Your task to perform on an android device: turn notification dots off Image 0: 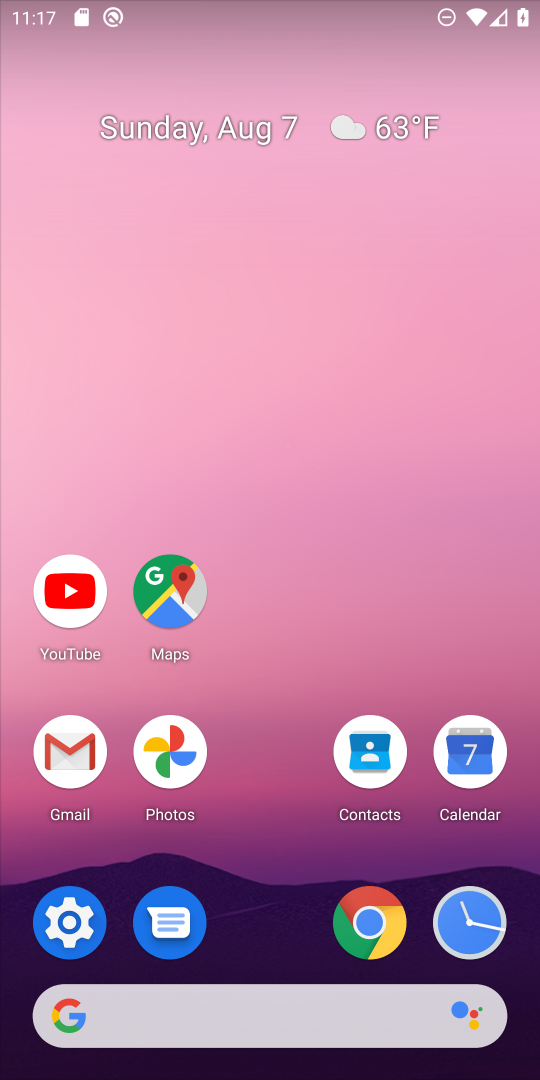
Step 0: press home button
Your task to perform on an android device: turn notification dots off Image 1: 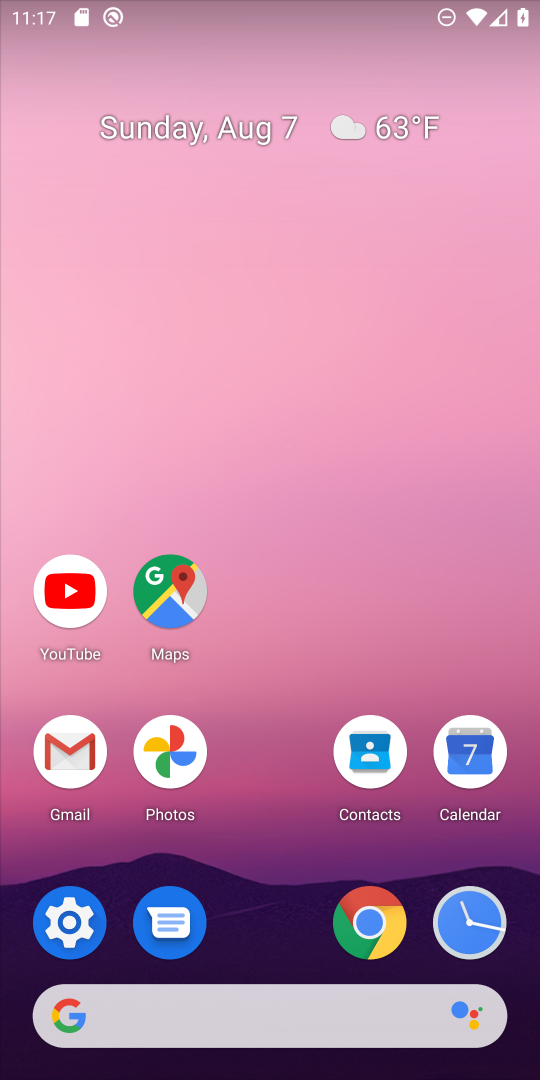
Step 1: click (69, 926)
Your task to perform on an android device: turn notification dots off Image 2: 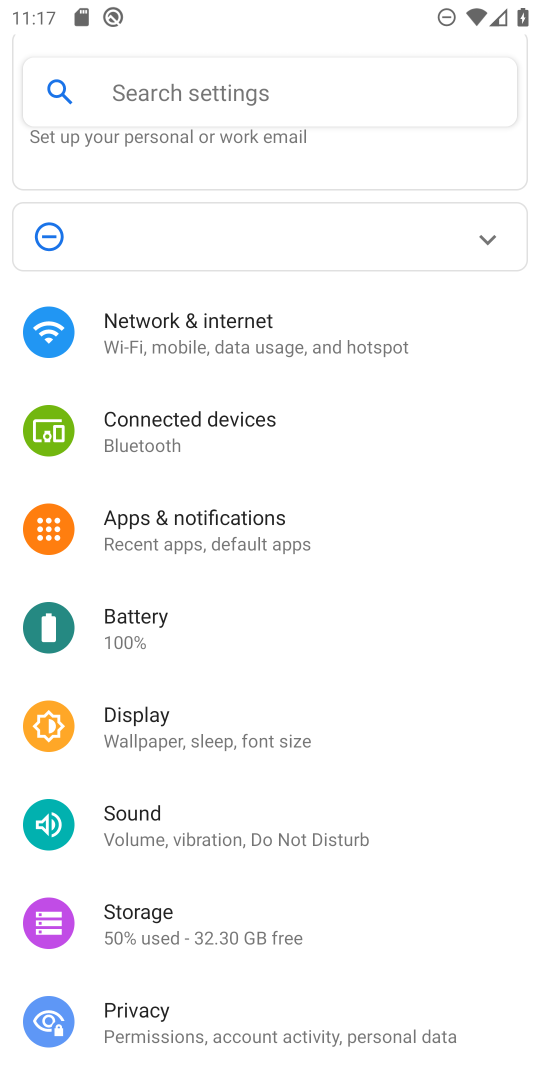
Step 2: click (205, 522)
Your task to perform on an android device: turn notification dots off Image 3: 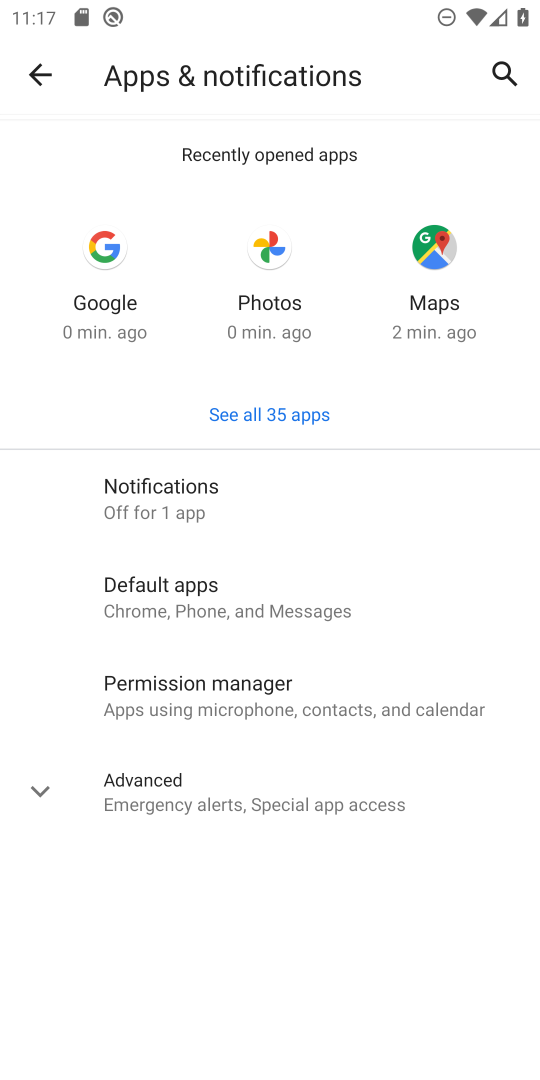
Step 3: click (179, 484)
Your task to perform on an android device: turn notification dots off Image 4: 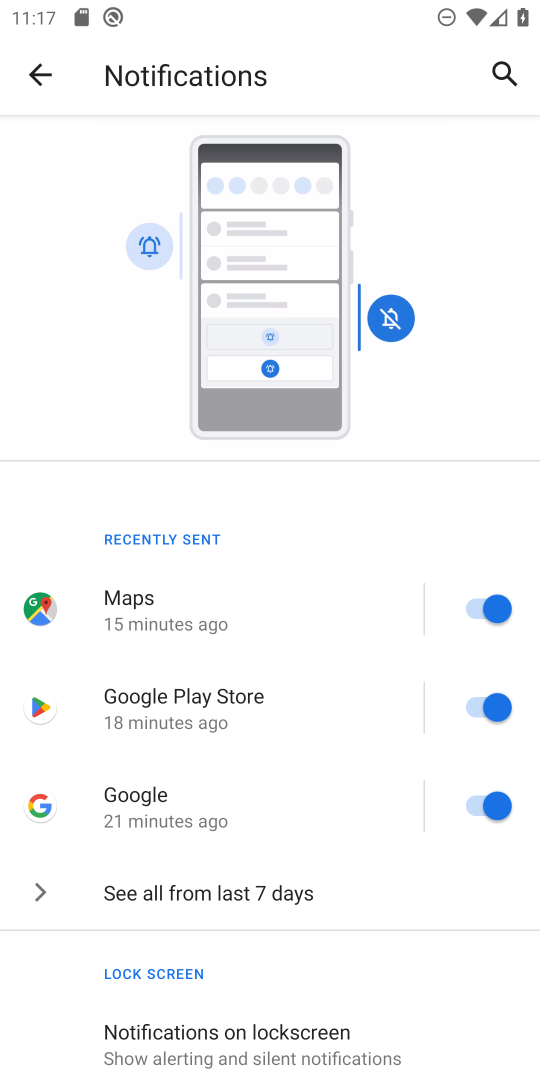
Step 4: drag from (265, 949) to (239, 168)
Your task to perform on an android device: turn notification dots off Image 5: 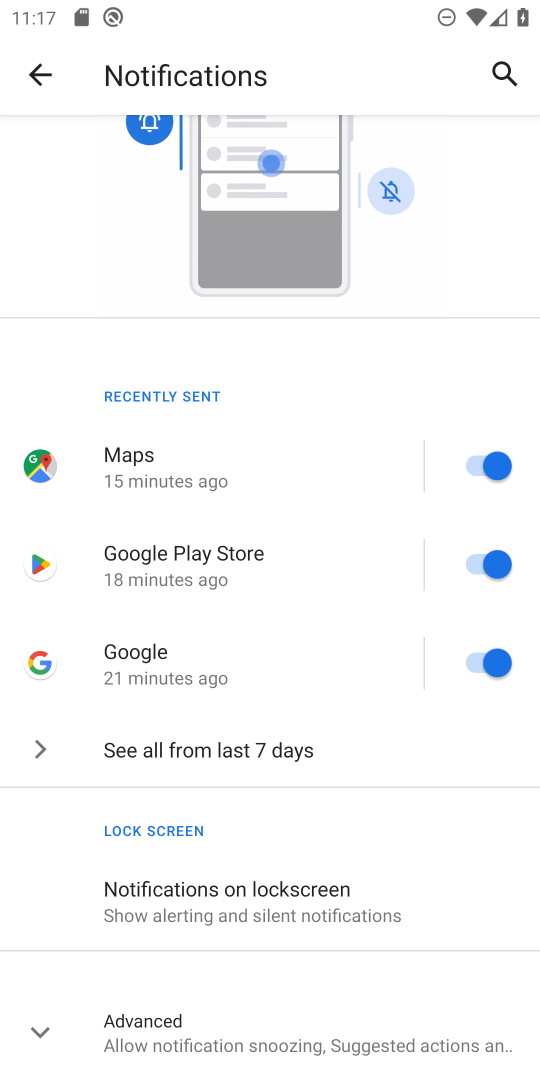
Step 5: click (30, 1021)
Your task to perform on an android device: turn notification dots off Image 6: 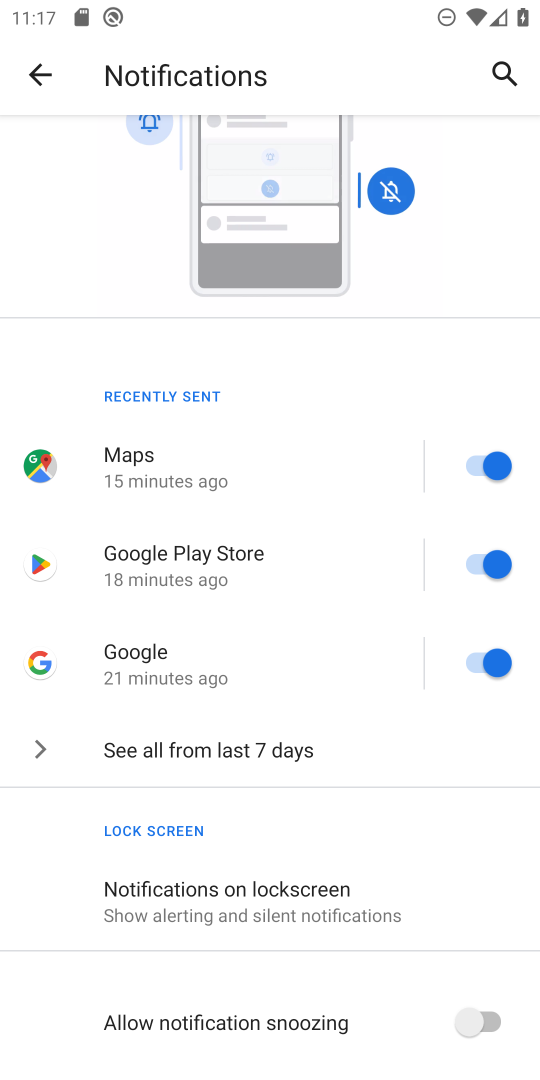
Step 6: drag from (179, 976) to (266, 609)
Your task to perform on an android device: turn notification dots off Image 7: 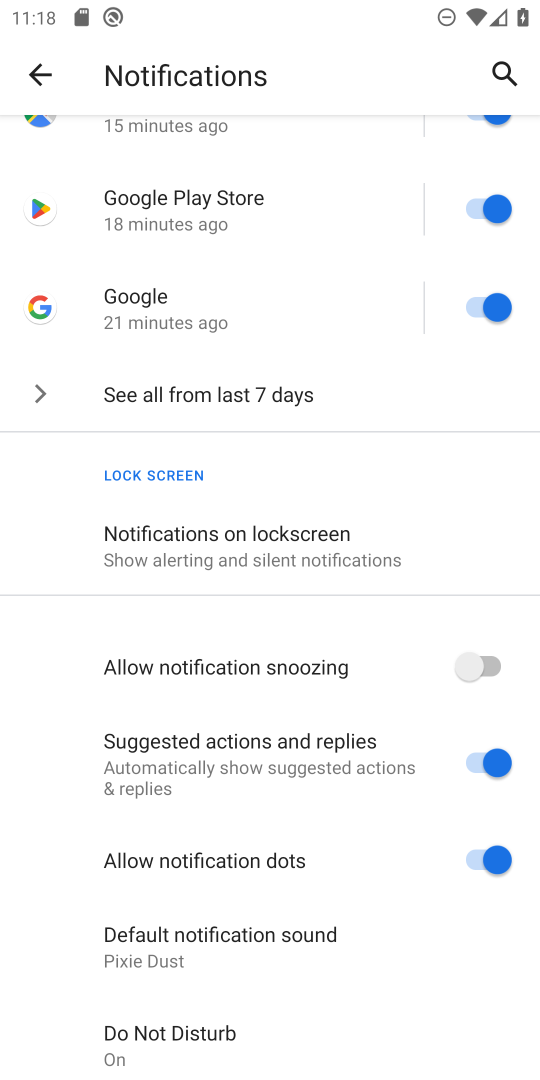
Step 7: click (485, 854)
Your task to perform on an android device: turn notification dots off Image 8: 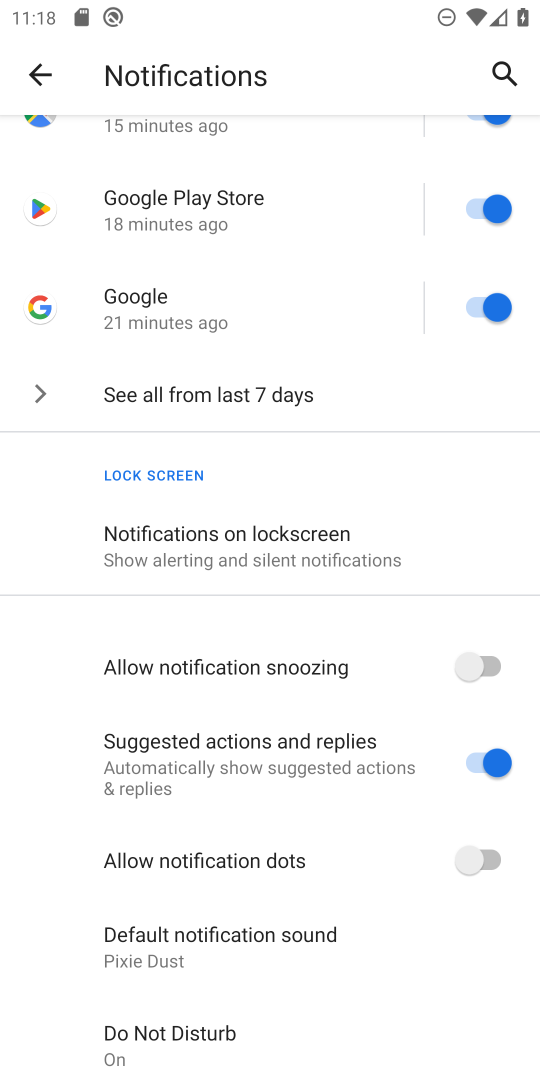
Step 8: task complete